Your task to perform on an android device: Go to battery settings Image 0: 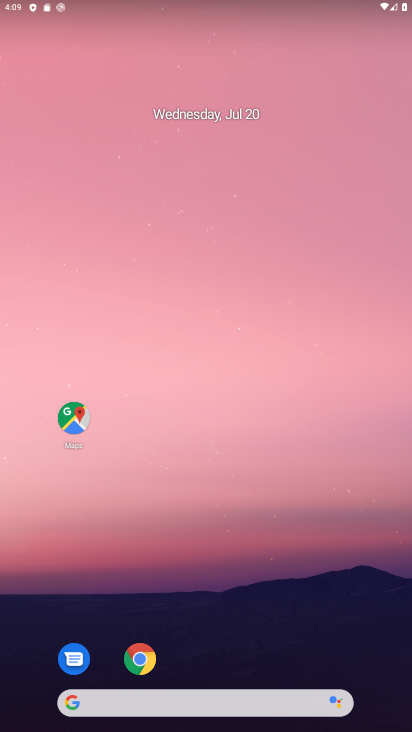
Step 0: drag from (170, 702) to (292, 4)
Your task to perform on an android device: Go to battery settings Image 1: 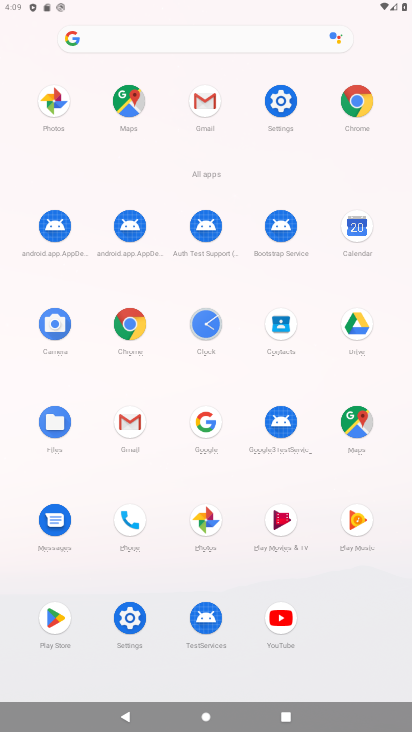
Step 1: click (282, 98)
Your task to perform on an android device: Go to battery settings Image 2: 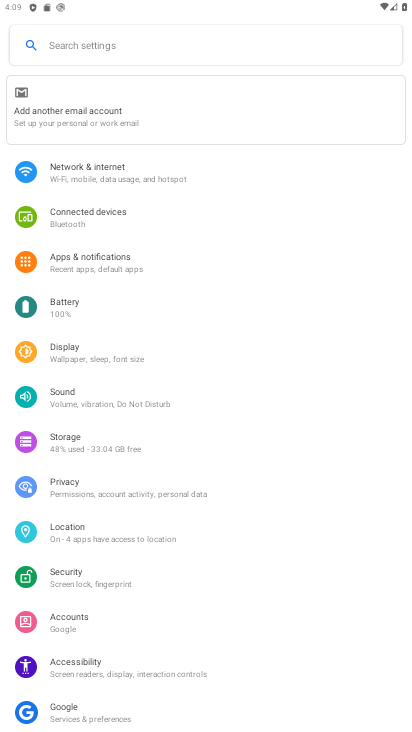
Step 2: click (99, 311)
Your task to perform on an android device: Go to battery settings Image 3: 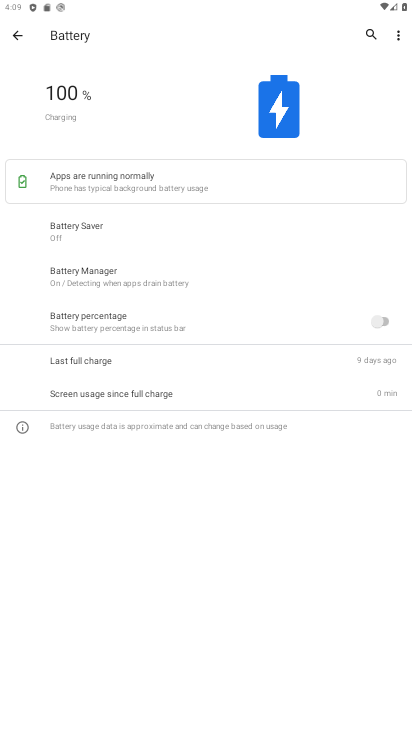
Step 3: task complete